Your task to perform on an android device: How much does the Sony TV cost? Image 0: 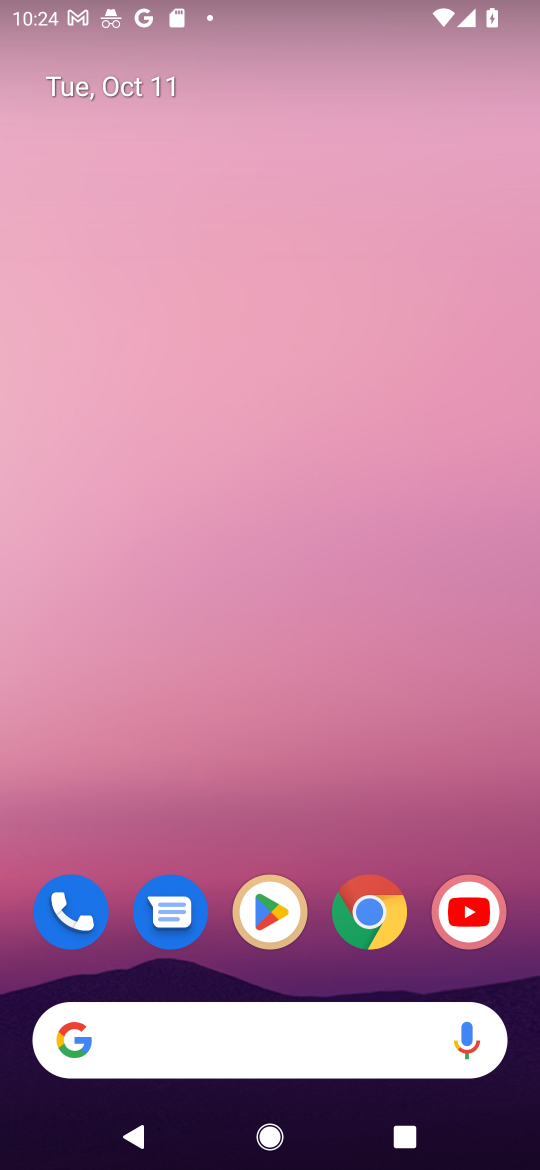
Step 0: click (379, 898)
Your task to perform on an android device: How much does the Sony TV cost? Image 1: 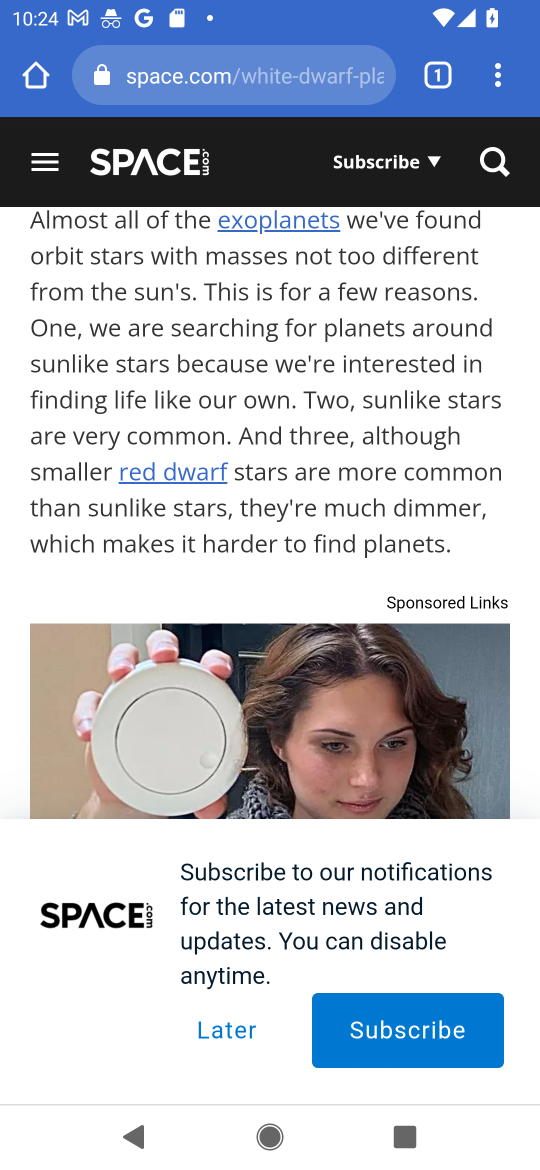
Step 1: click (242, 48)
Your task to perform on an android device: How much does the Sony TV cost? Image 2: 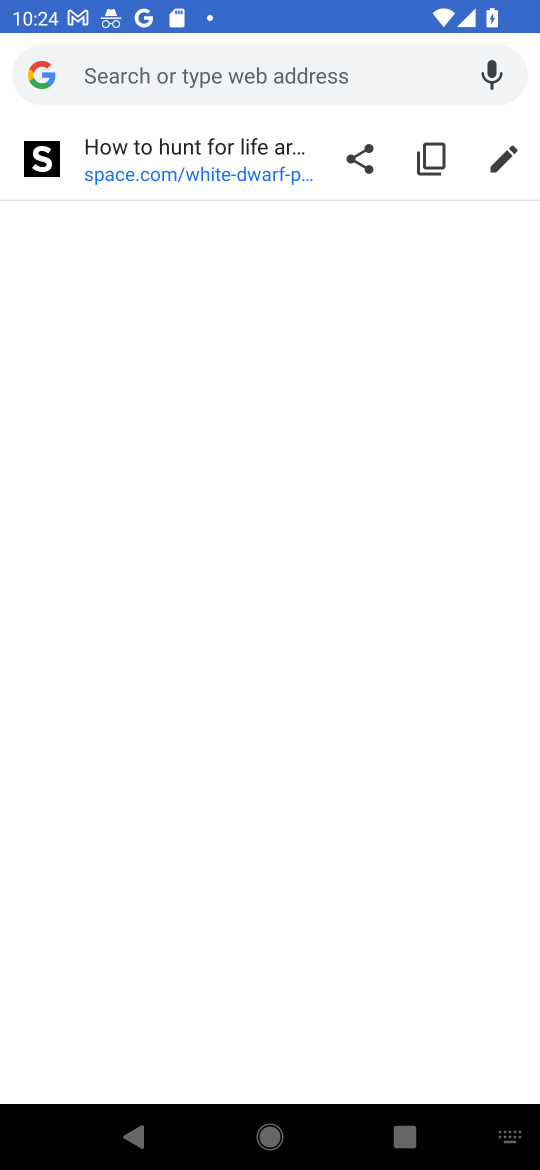
Step 2: type "Sony TV"
Your task to perform on an android device: How much does the Sony TV cost? Image 3: 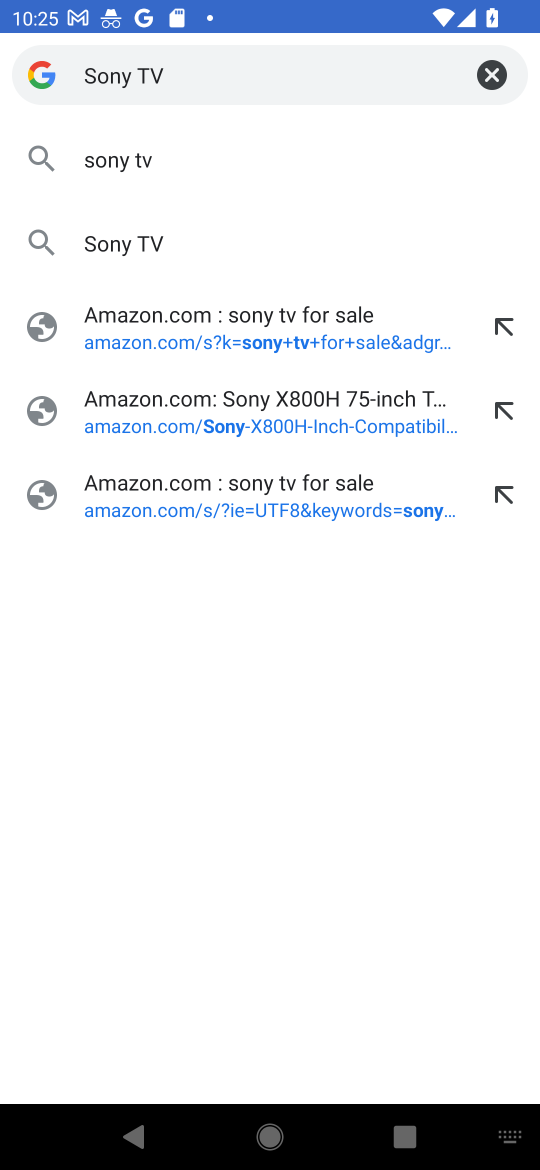
Step 3: click (103, 159)
Your task to perform on an android device: How much does the Sony TV cost? Image 4: 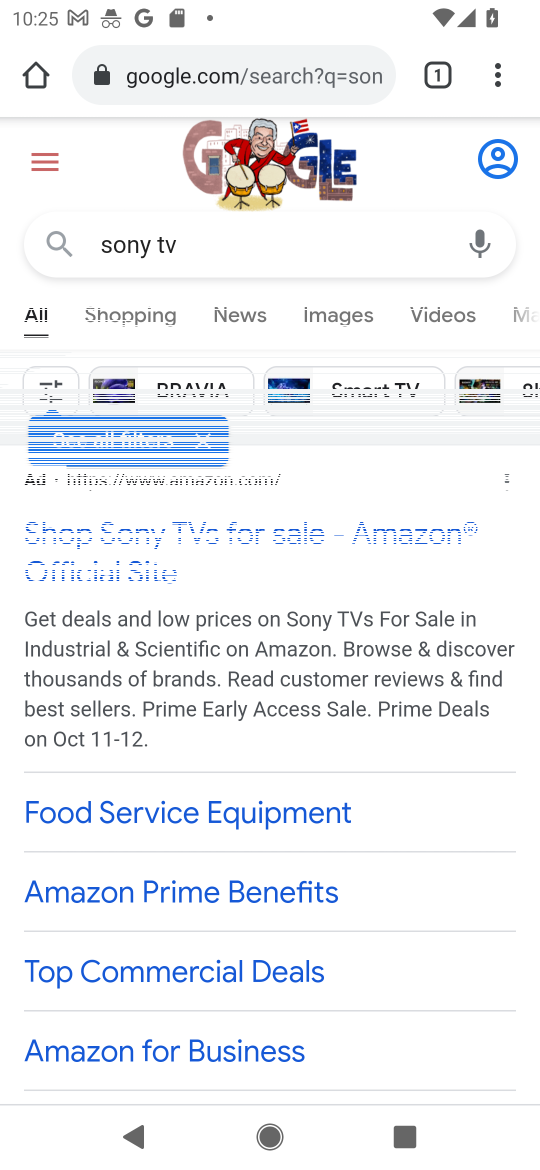
Step 4: click (123, 553)
Your task to perform on an android device: How much does the Sony TV cost? Image 5: 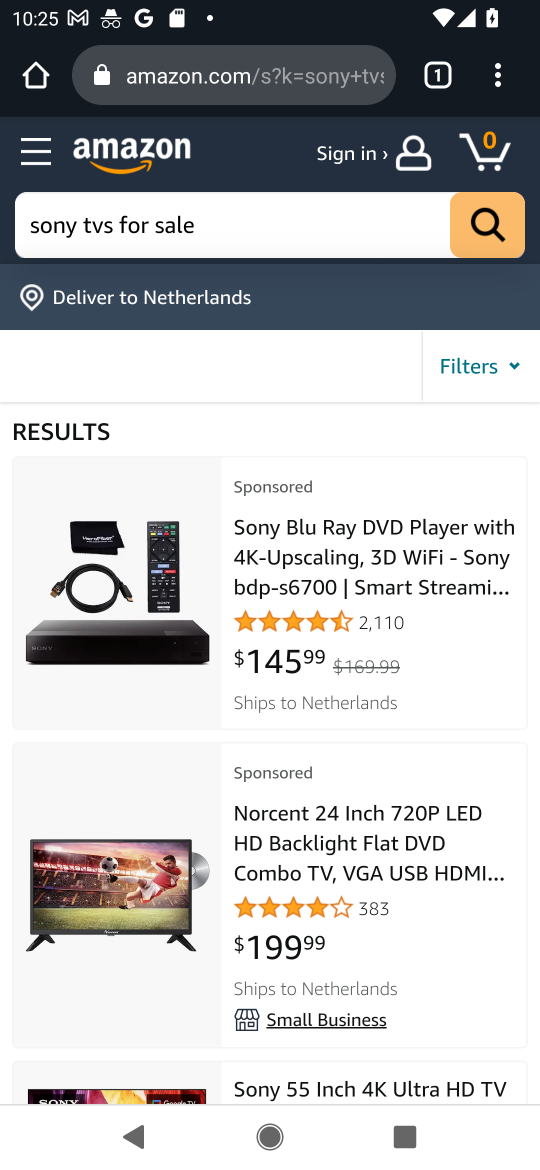
Step 5: drag from (329, 737) to (304, 270)
Your task to perform on an android device: How much does the Sony TV cost? Image 6: 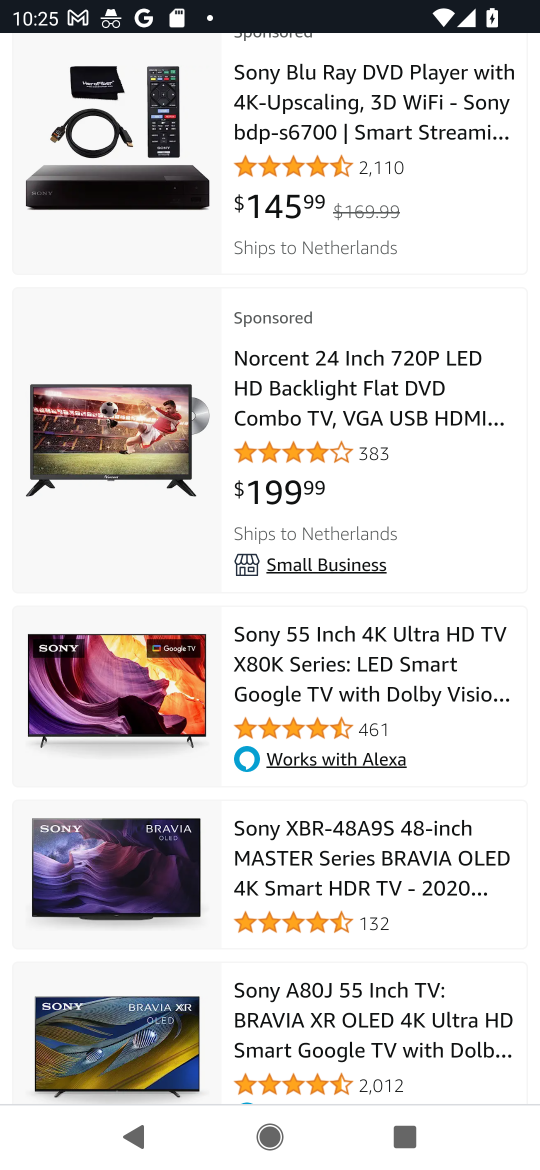
Step 6: drag from (308, 788) to (345, 447)
Your task to perform on an android device: How much does the Sony TV cost? Image 7: 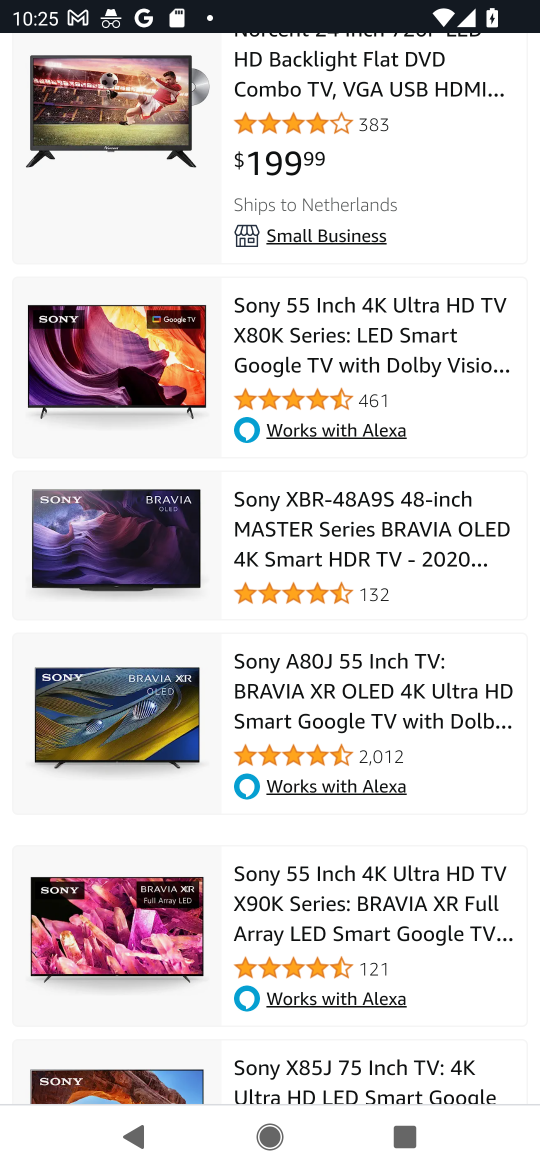
Step 7: drag from (325, 468) to (325, 108)
Your task to perform on an android device: How much does the Sony TV cost? Image 8: 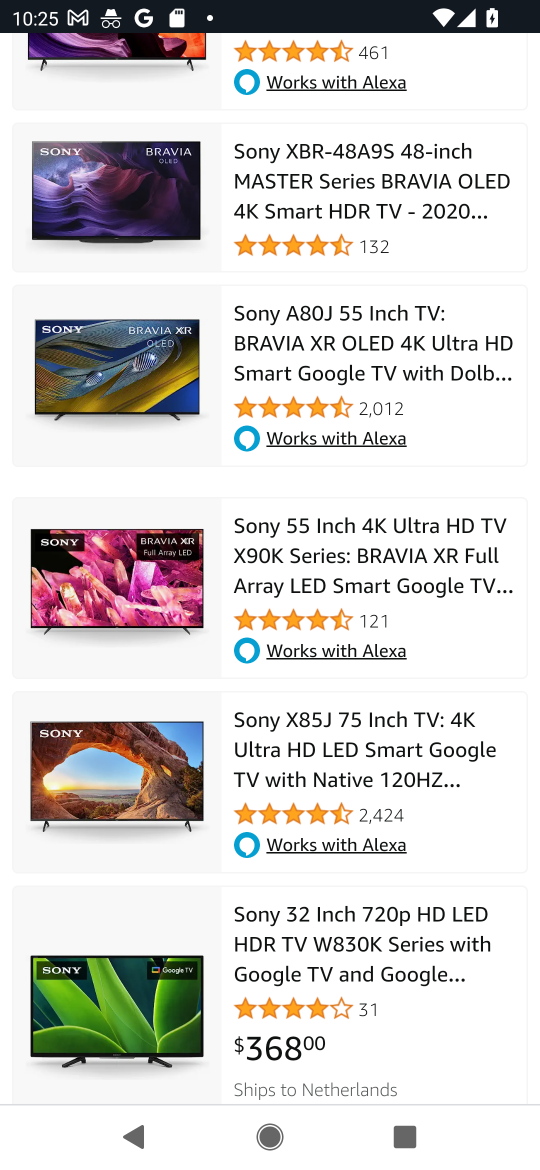
Step 8: click (284, 323)
Your task to perform on an android device: How much does the Sony TV cost? Image 9: 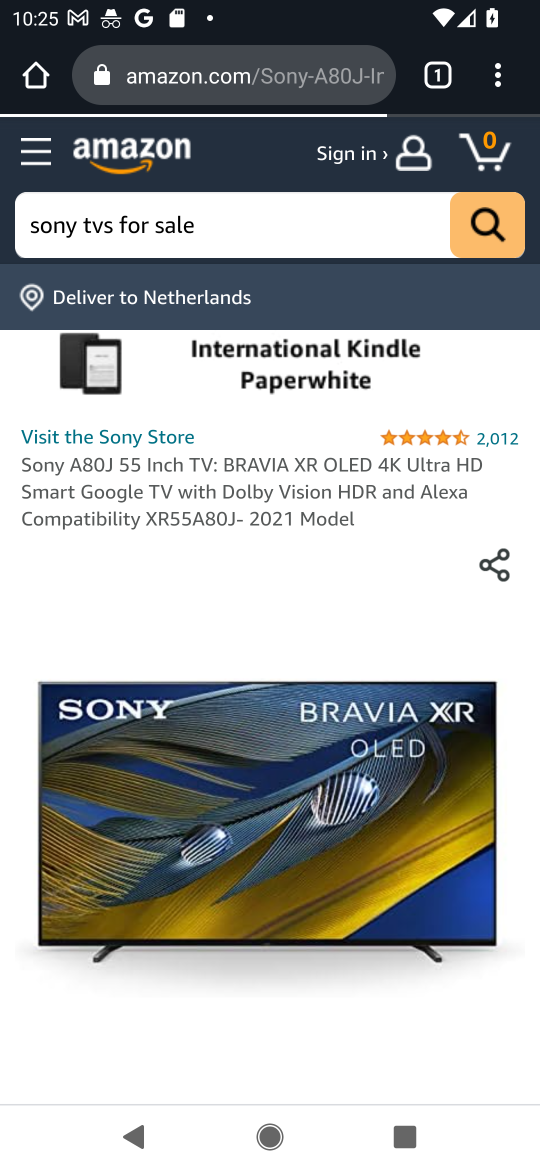
Step 9: task complete